Your task to perform on an android device: Go to calendar. Show me events next week Image 0: 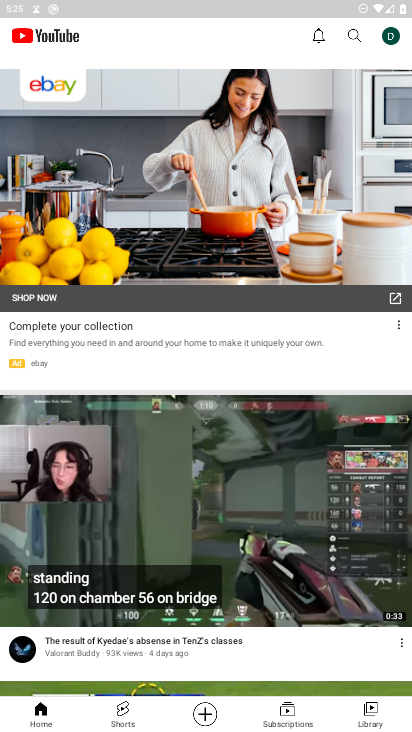
Step 0: press home button
Your task to perform on an android device: Go to calendar. Show me events next week Image 1: 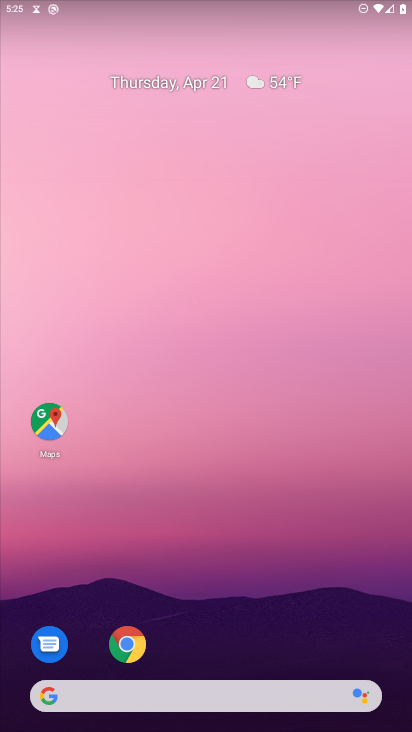
Step 1: drag from (171, 653) to (188, 325)
Your task to perform on an android device: Go to calendar. Show me events next week Image 2: 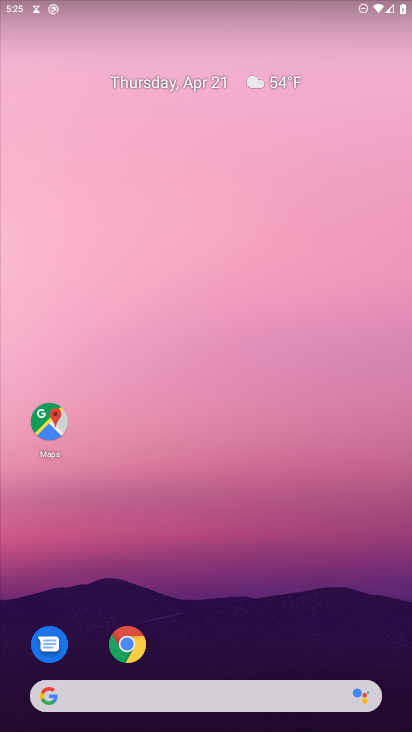
Step 2: drag from (205, 677) to (213, 289)
Your task to perform on an android device: Go to calendar. Show me events next week Image 3: 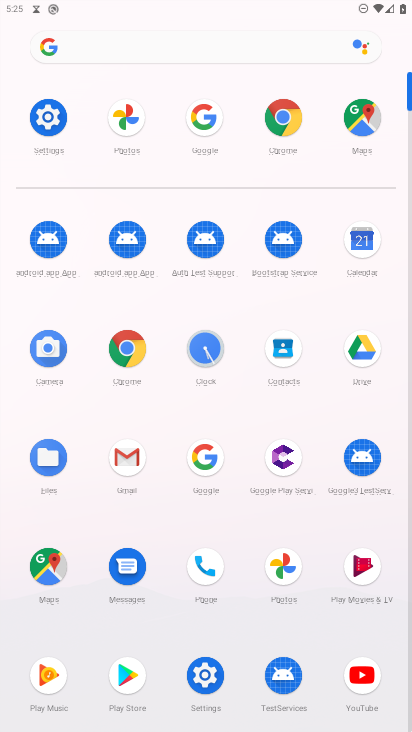
Step 3: click (347, 244)
Your task to perform on an android device: Go to calendar. Show me events next week Image 4: 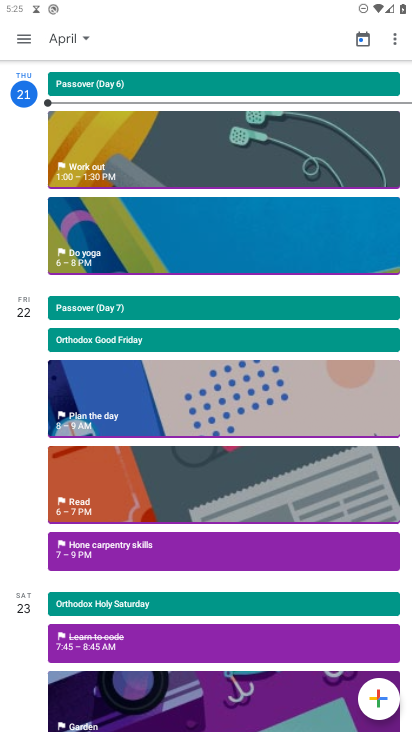
Step 4: click (53, 35)
Your task to perform on an android device: Go to calendar. Show me events next week Image 5: 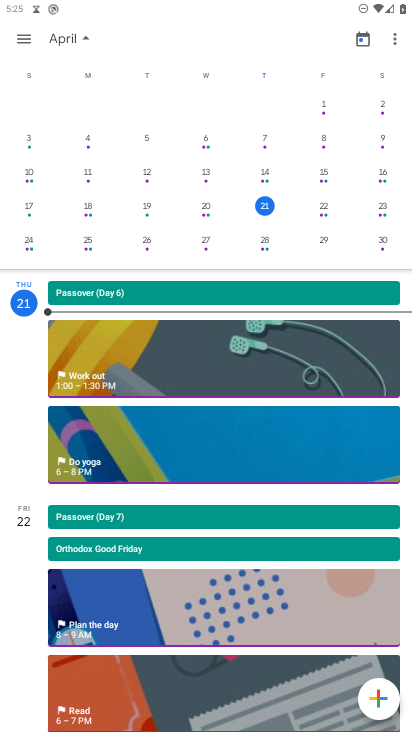
Step 5: click (262, 245)
Your task to perform on an android device: Go to calendar. Show me events next week Image 6: 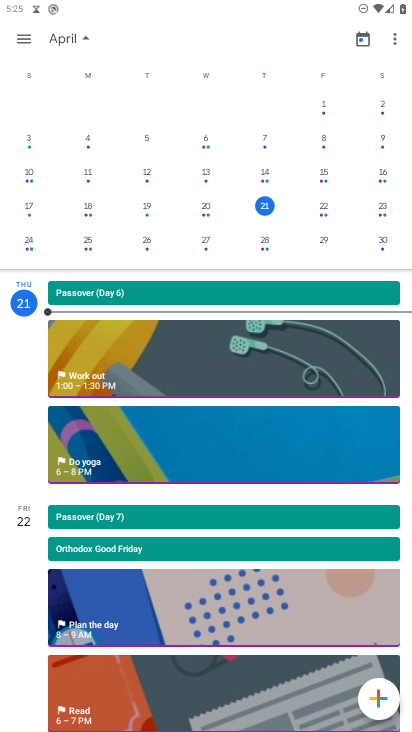
Step 6: click (267, 241)
Your task to perform on an android device: Go to calendar. Show me events next week Image 7: 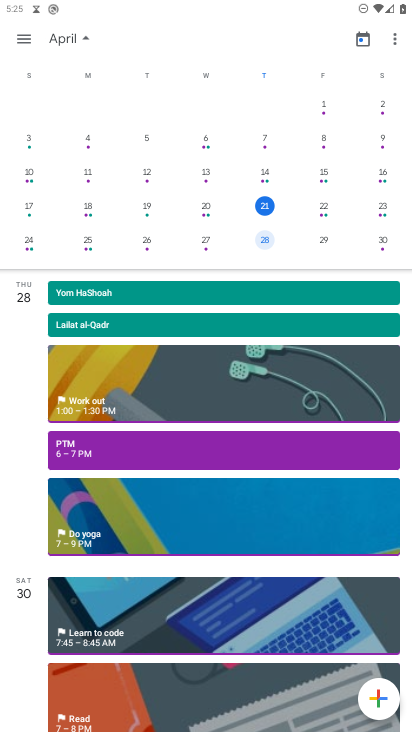
Step 7: task complete